Your task to perform on an android device: uninstall "Etsy: Buy & Sell Unique Items" Image 0: 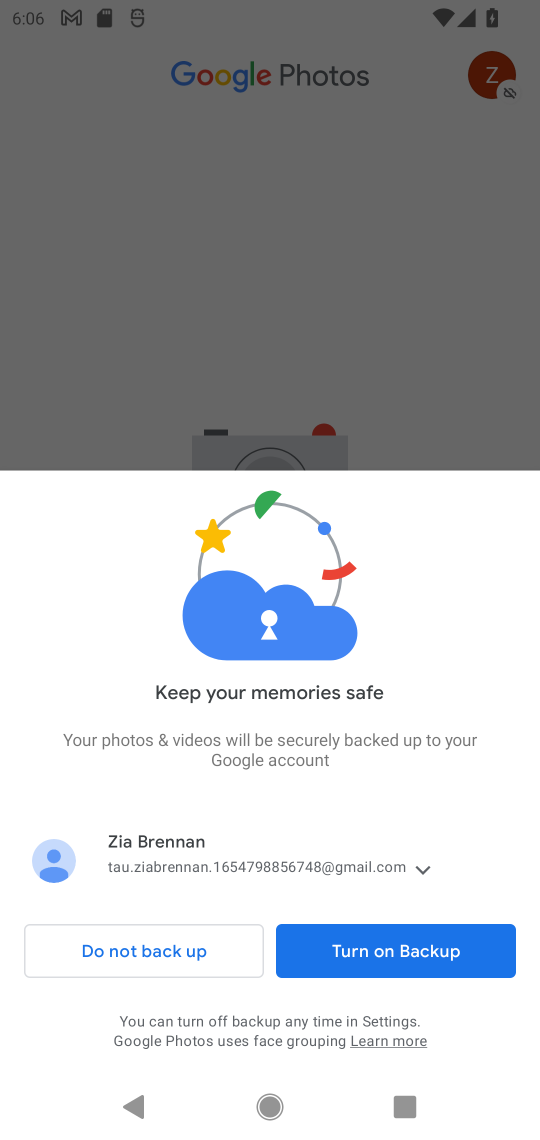
Step 0: click (241, 243)
Your task to perform on an android device: uninstall "Etsy: Buy & Sell Unique Items" Image 1: 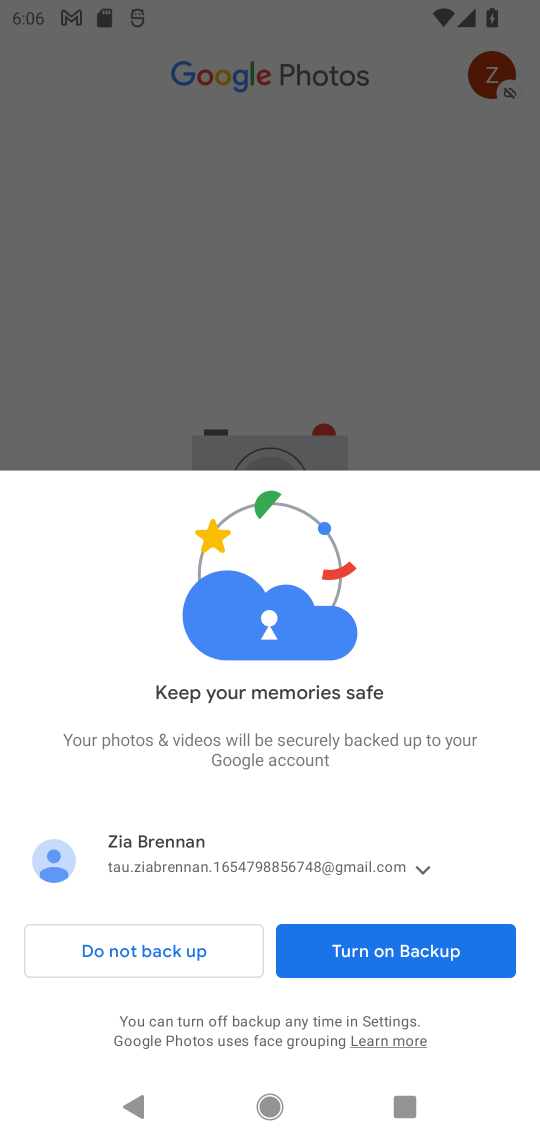
Step 1: click (241, 243)
Your task to perform on an android device: uninstall "Etsy: Buy & Sell Unique Items" Image 2: 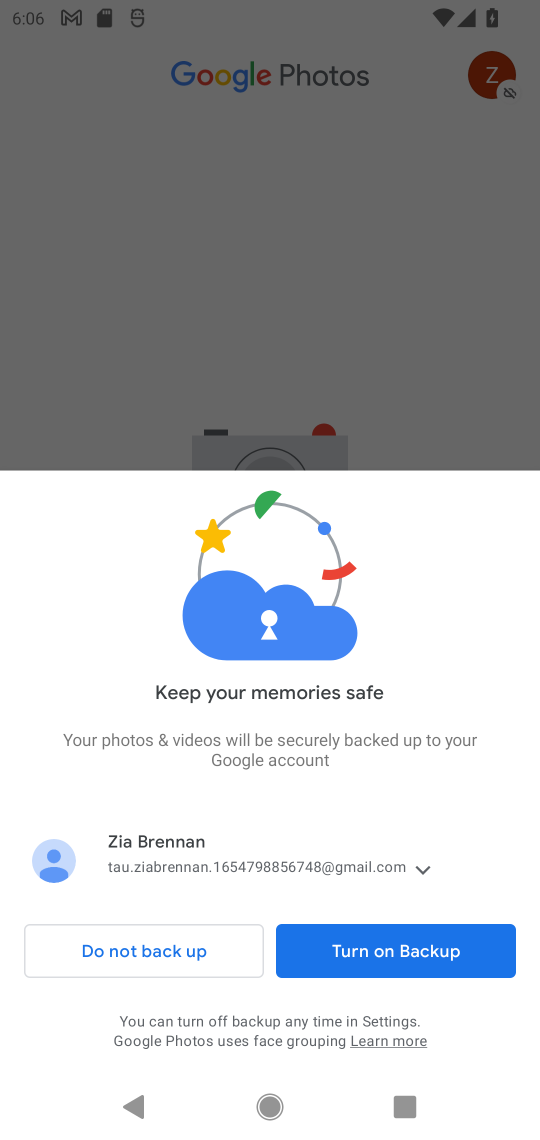
Step 2: click (280, 272)
Your task to perform on an android device: uninstall "Etsy: Buy & Sell Unique Items" Image 3: 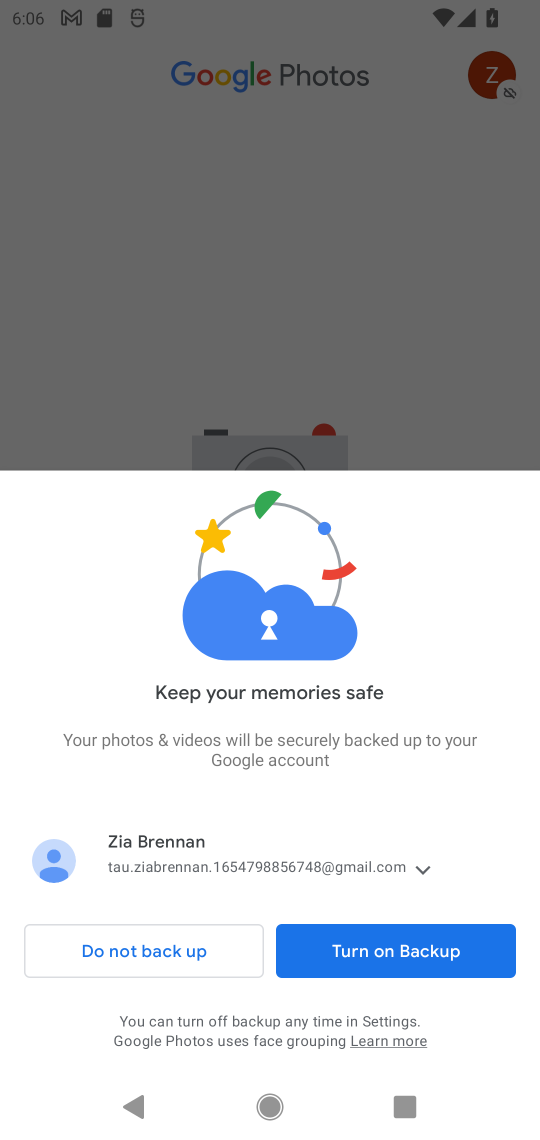
Step 3: click (353, 278)
Your task to perform on an android device: uninstall "Etsy: Buy & Sell Unique Items" Image 4: 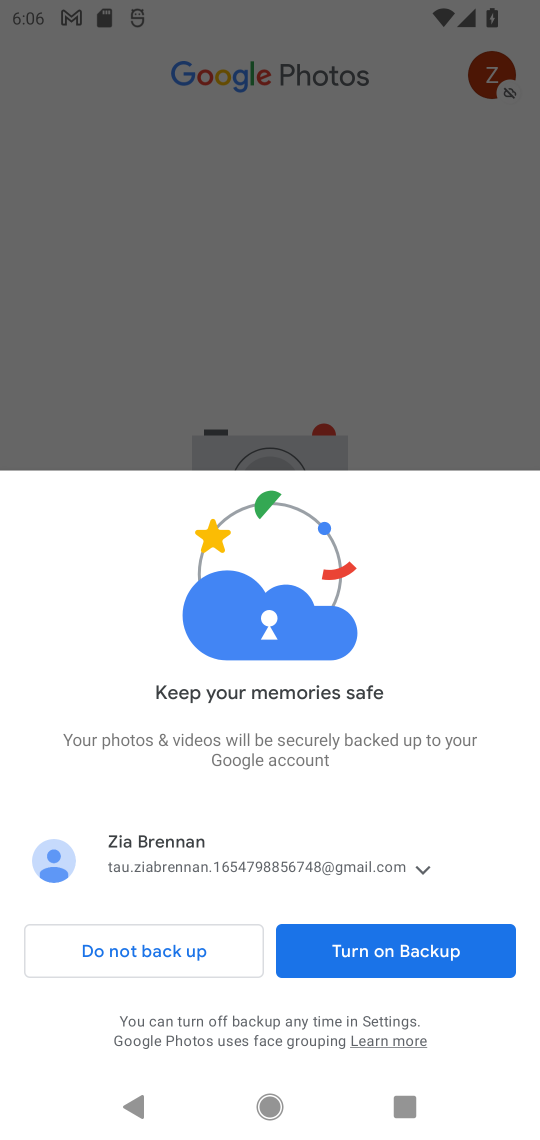
Step 4: click (357, 284)
Your task to perform on an android device: uninstall "Etsy: Buy & Sell Unique Items" Image 5: 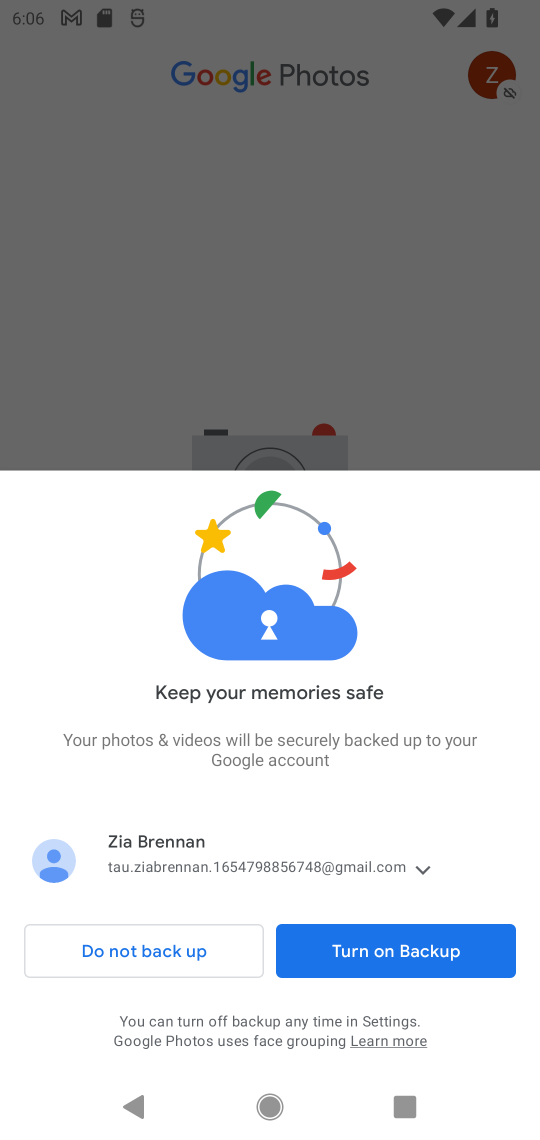
Step 5: click (353, 284)
Your task to perform on an android device: uninstall "Etsy: Buy & Sell Unique Items" Image 6: 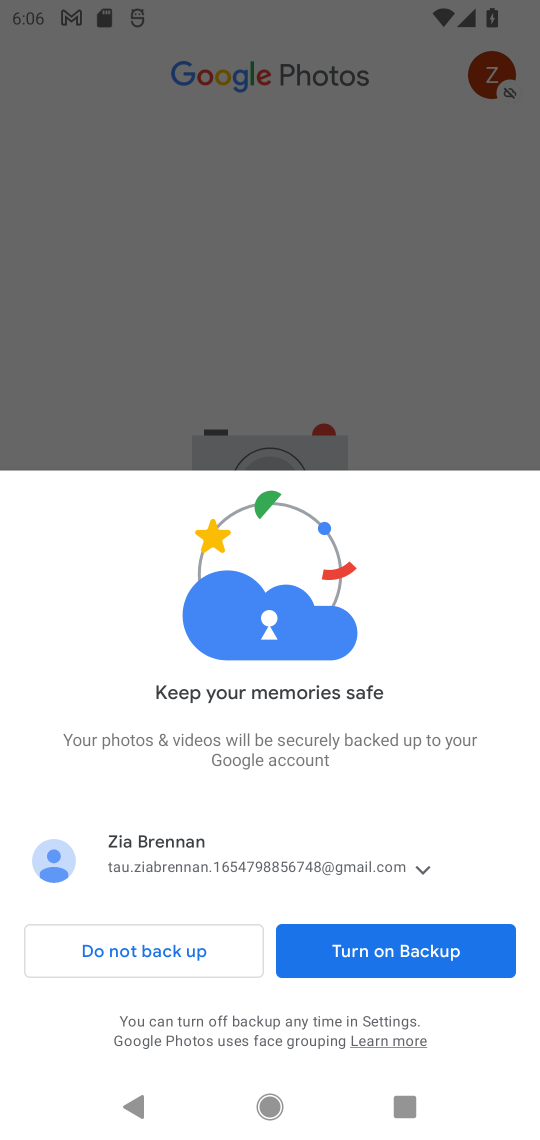
Step 6: press back button
Your task to perform on an android device: uninstall "Etsy: Buy & Sell Unique Items" Image 7: 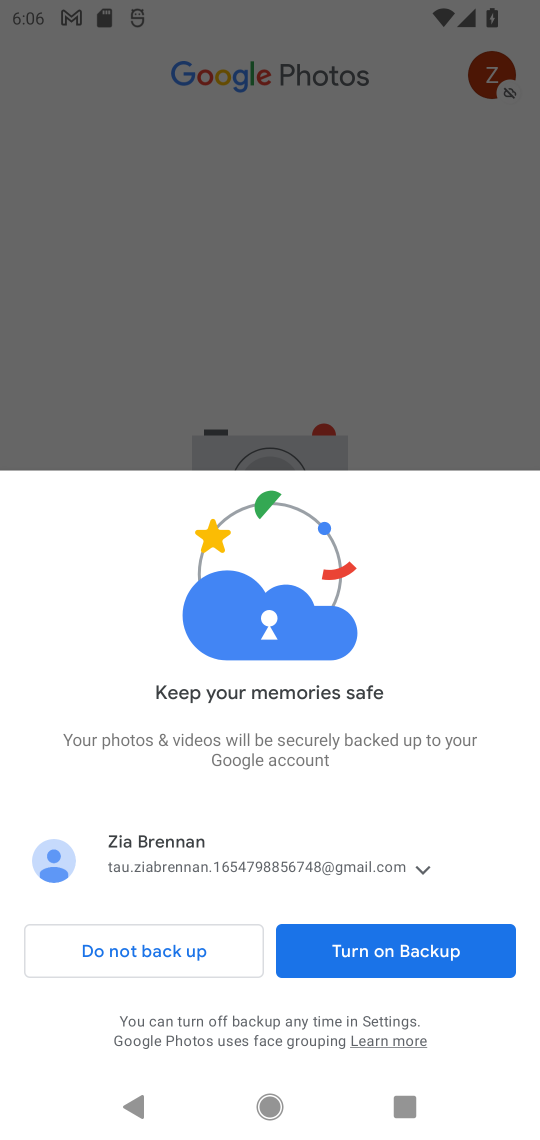
Step 7: press back button
Your task to perform on an android device: uninstall "Etsy: Buy & Sell Unique Items" Image 8: 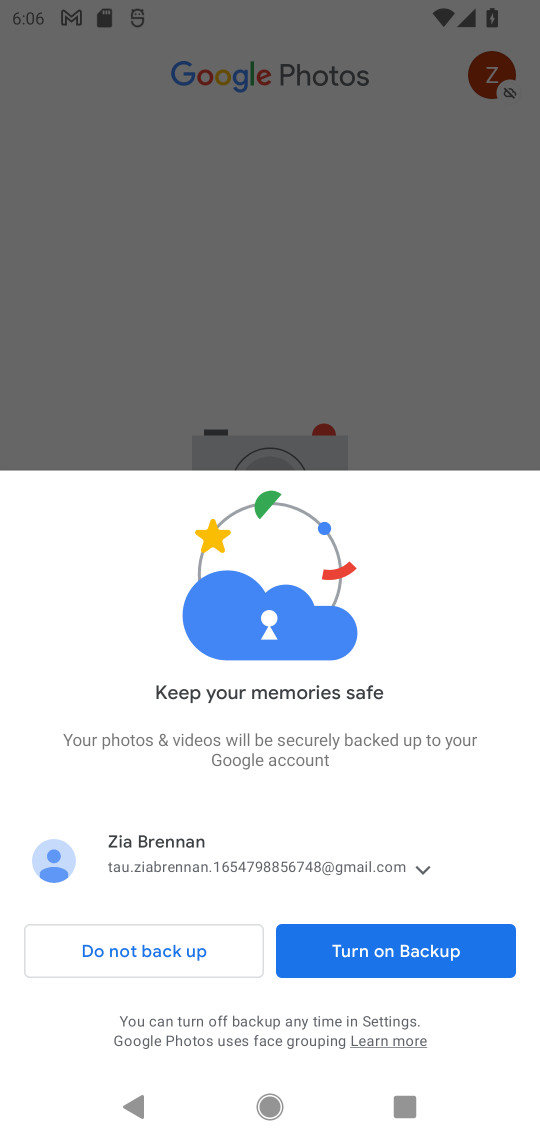
Step 8: click (196, 358)
Your task to perform on an android device: uninstall "Etsy: Buy & Sell Unique Items" Image 9: 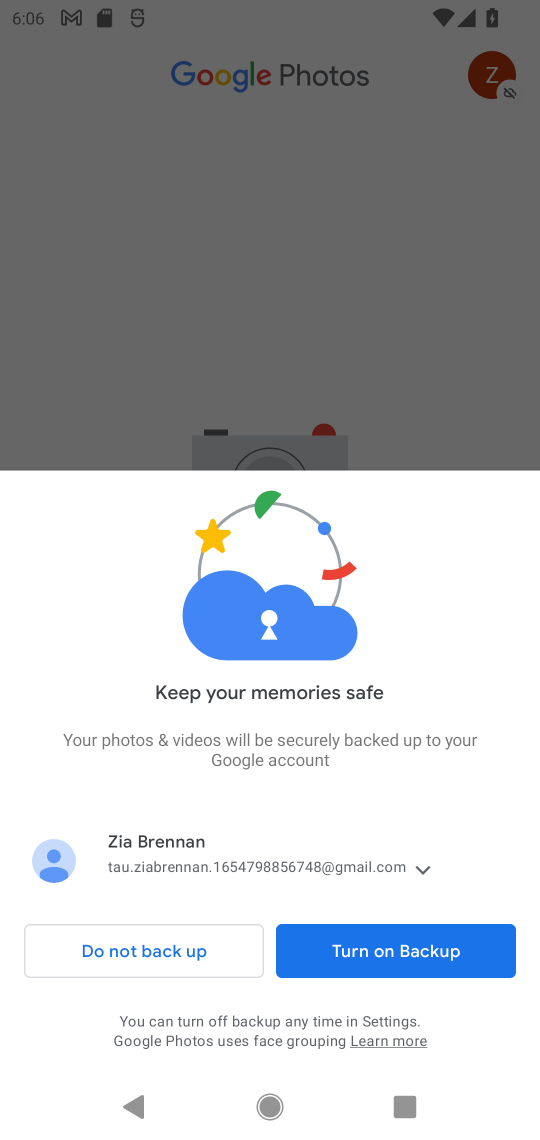
Step 9: click (197, 360)
Your task to perform on an android device: uninstall "Etsy: Buy & Sell Unique Items" Image 10: 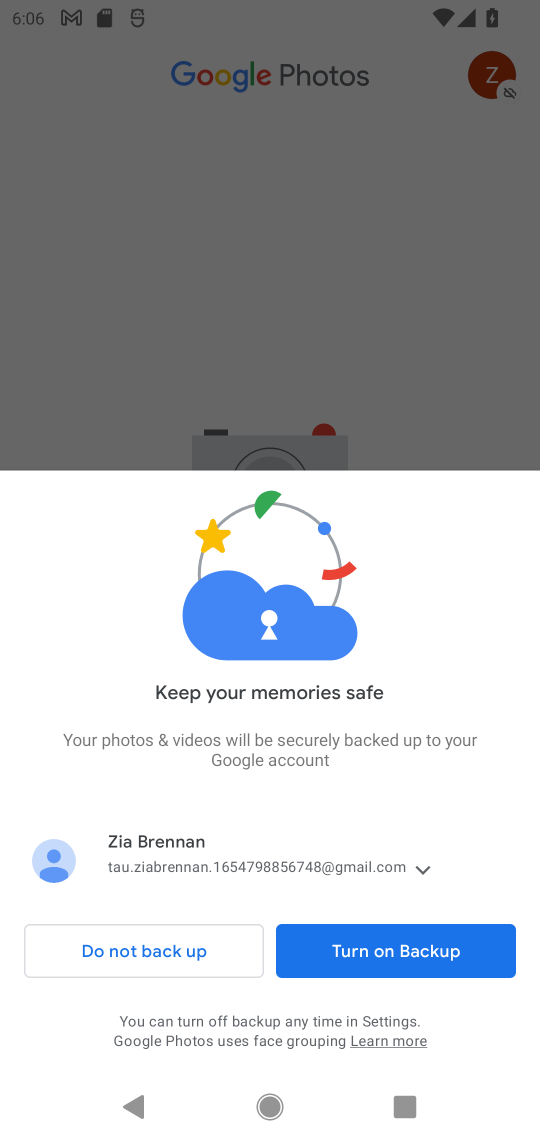
Step 10: press back button
Your task to perform on an android device: uninstall "Etsy: Buy & Sell Unique Items" Image 11: 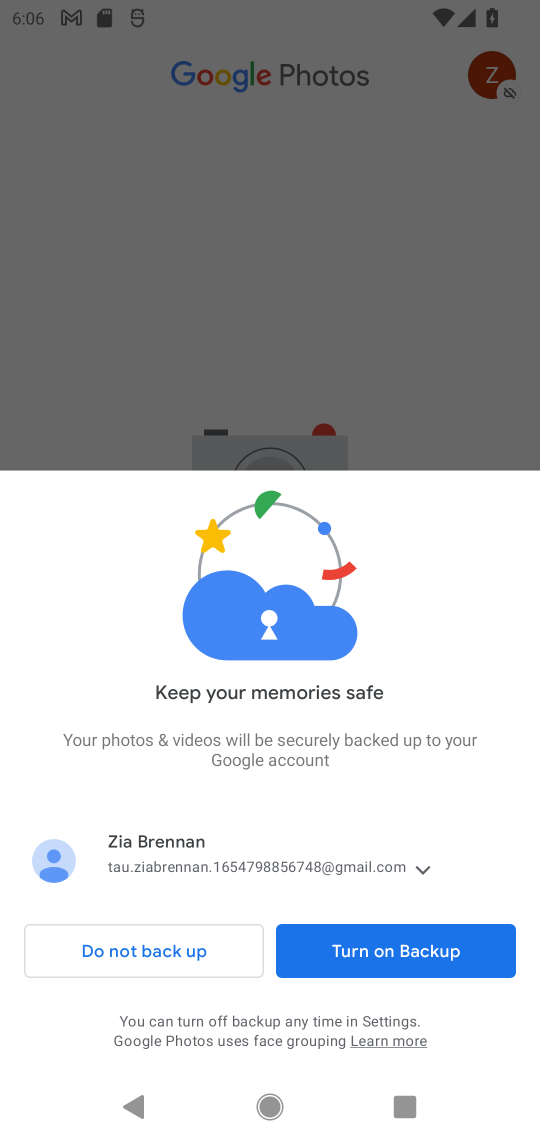
Step 11: drag from (338, 425) to (330, 366)
Your task to perform on an android device: uninstall "Etsy: Buy & Sell Unique Items" Image 12: 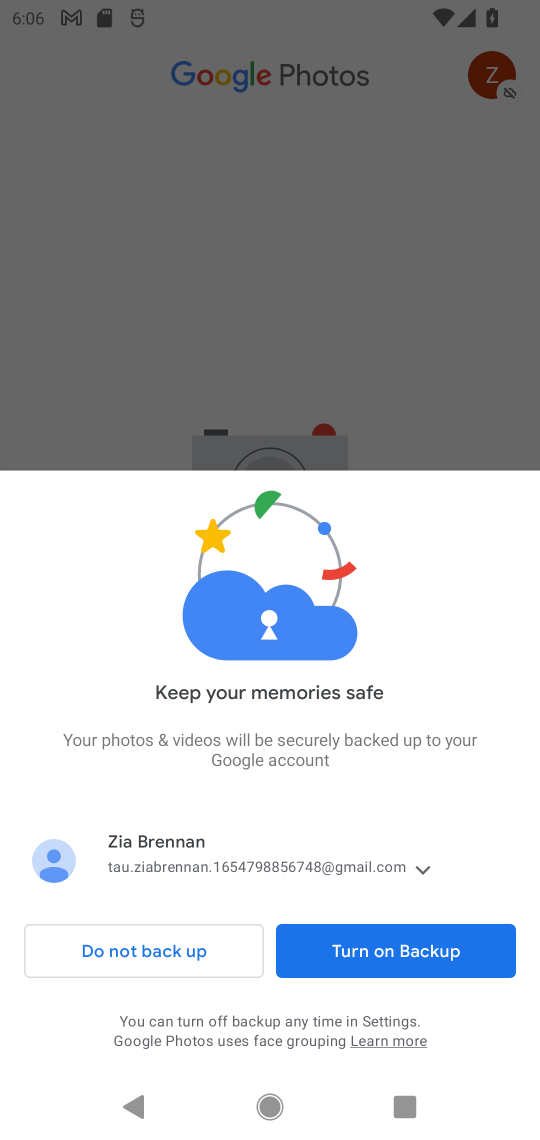
Step 12: click (319, 269)
Your task to perform on an android device: uninstall "Etsy: Buy & Sell Unique Items" Image 13: 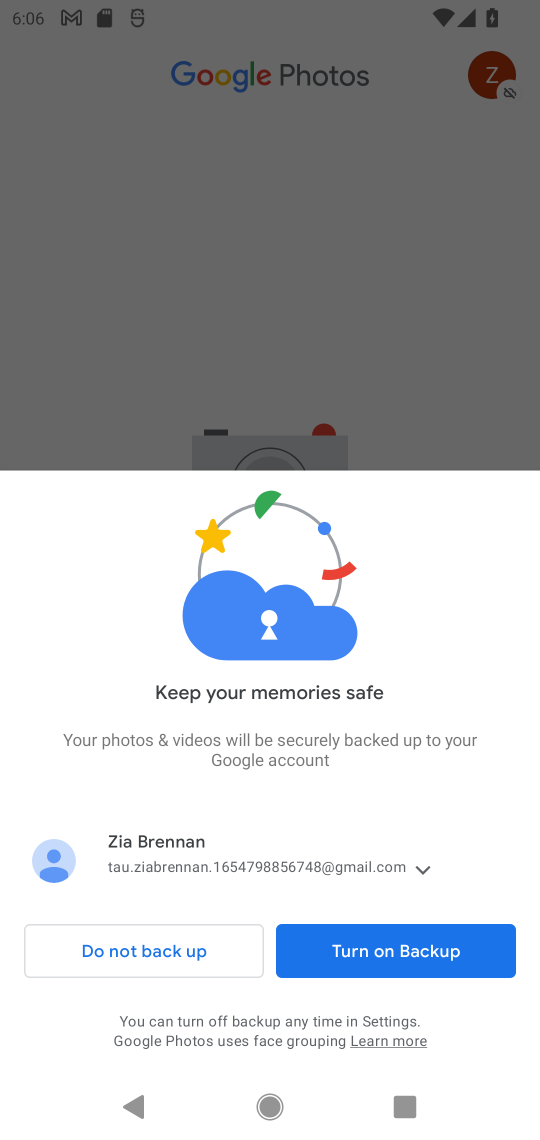
Step 13: click (339, 281)
Your task to perform on an android device: uninstall "Etsy: Buy & Sell Unique Items" Image 14: 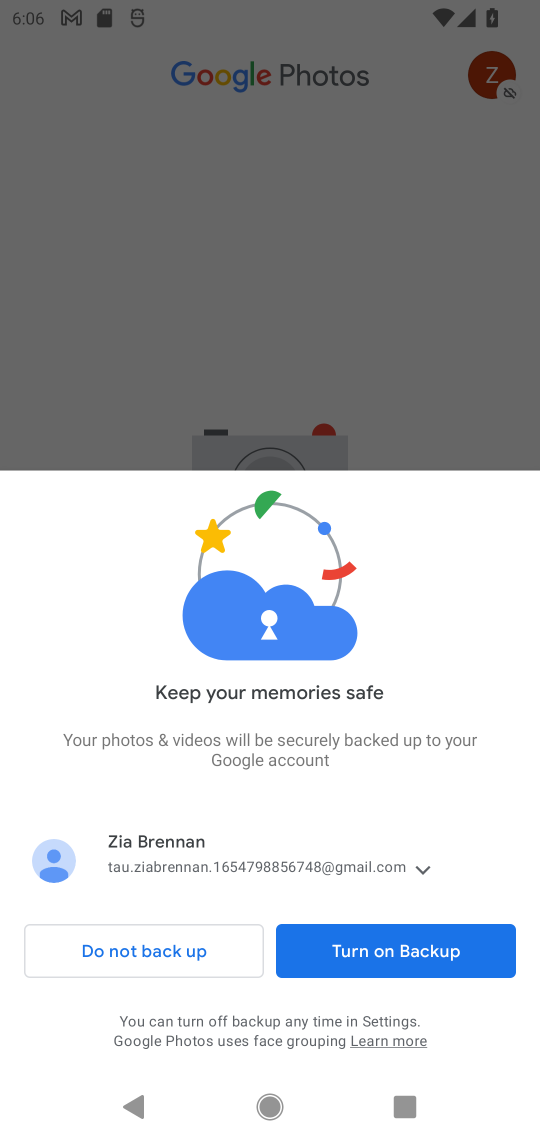
Step 14: press back button
Your task to perform on an android device: uninstall "Etsy: Buy & Sell Unique Items" Image 15: 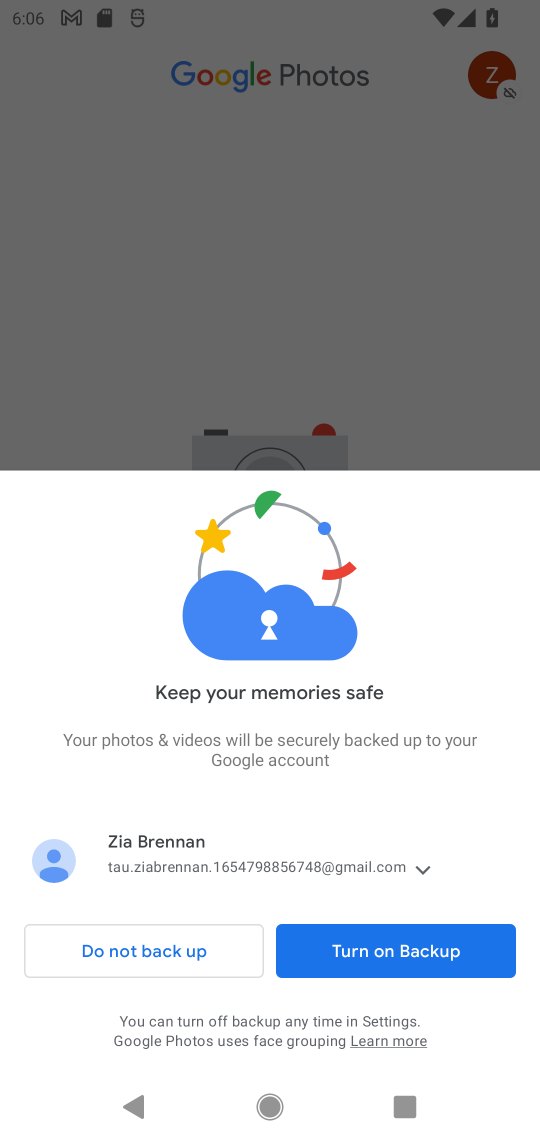
Step 15: press back button
Your task to perform on an android device: uninstall "Etsy: Buy & Sell Unique Items" Image 16: 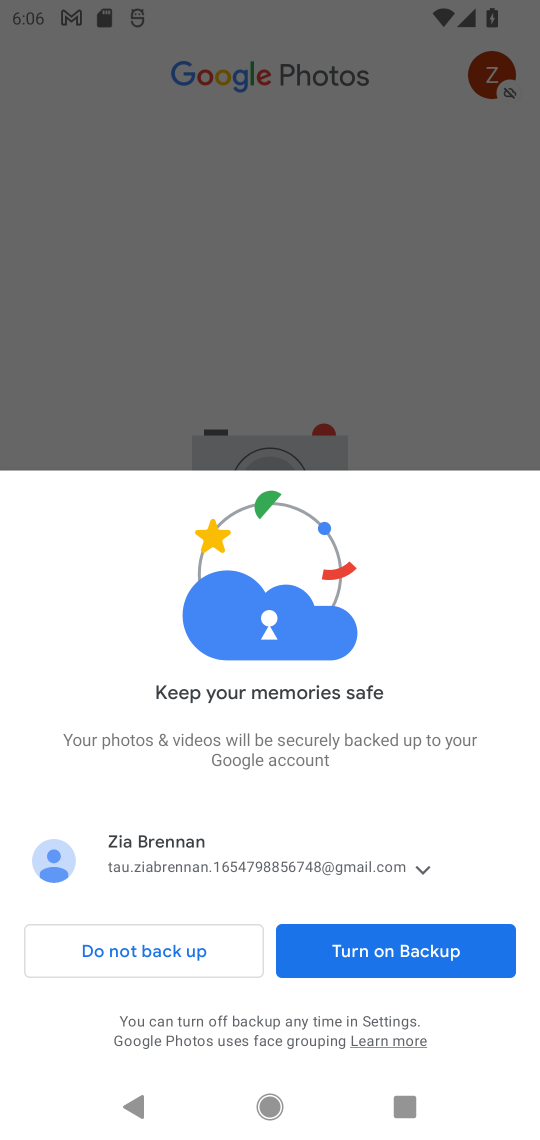
Step 16: click (133, 269)
Your task to perform on an android device: uninstall "Etsy: Buy & Sell Unique Items" Image 17: 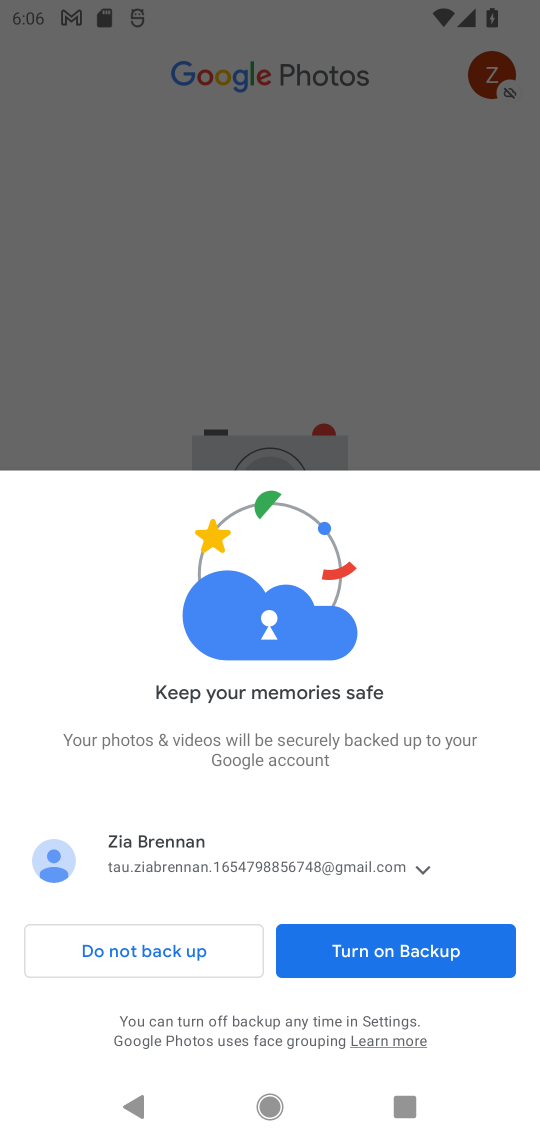
Step 17: click (341, 303)
Your task to perform on an android device: uninstall "Etsy: Buy & Sell Unique Items" Image 18: 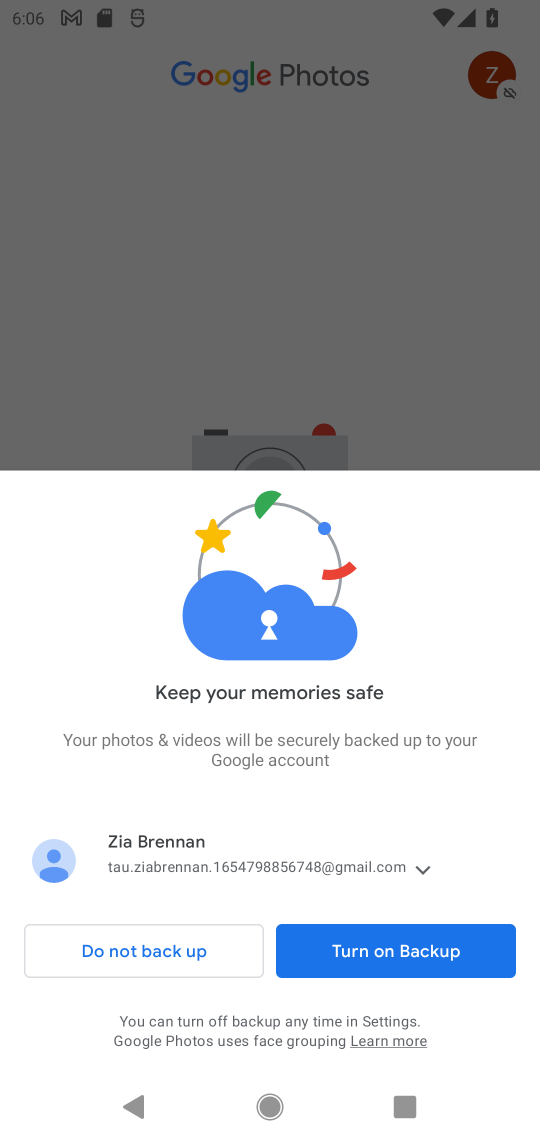
Step 18: click (326, 301)
Your task to perform on an android device: uninstall "Etsy: Buy & Sell Unique Items" Image 19: 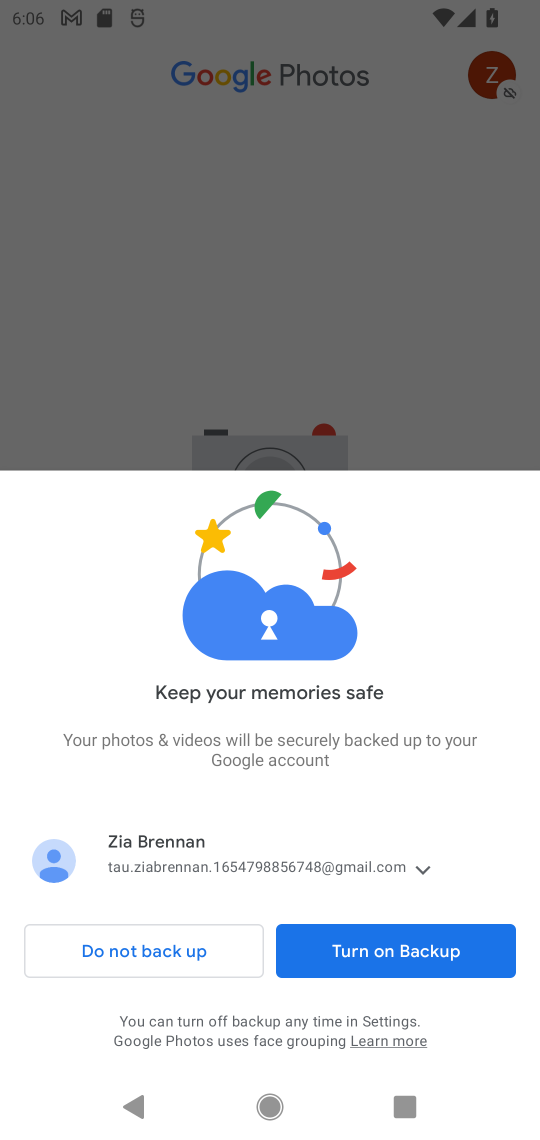
Step 19: press home button
Your task to perform on an android device: uninstall "Etsy: Buy & Sell Unique Items" Image 20: 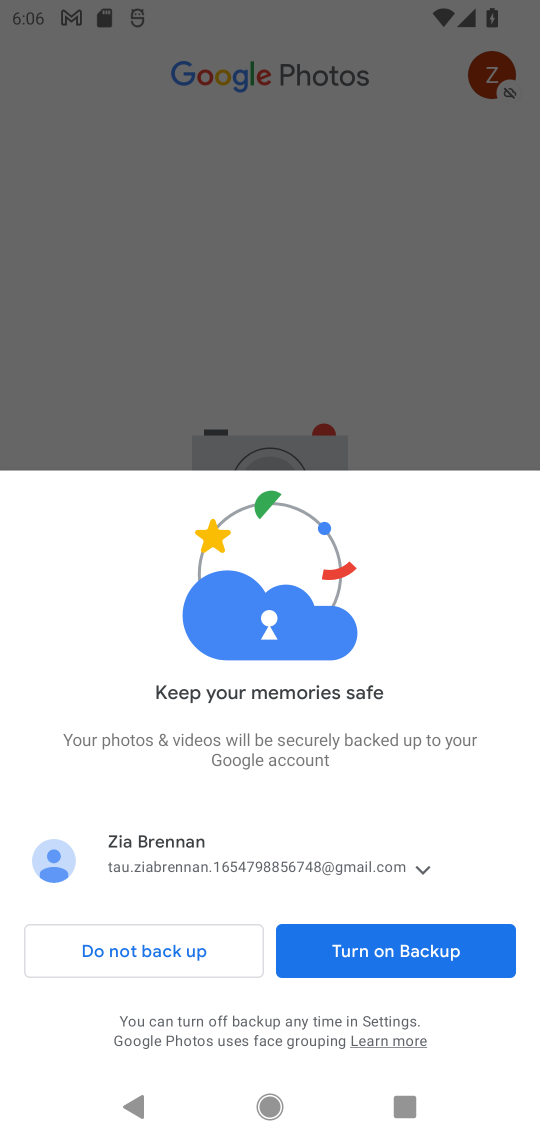
Step 20: press home button
Your task to perform on an android device: uninstall "Etsy: Buy & Sell Unique Items" Image 21: 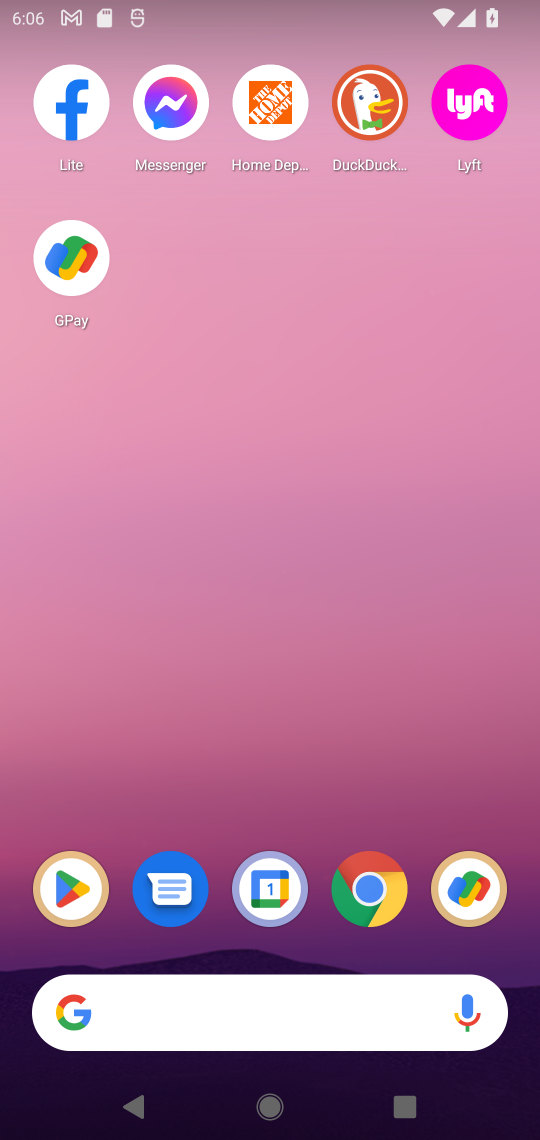
Step 21: press home button
Your task to perform on an android device: uninstall "Etsy: Buy & Sell Unique Items" Image 22: 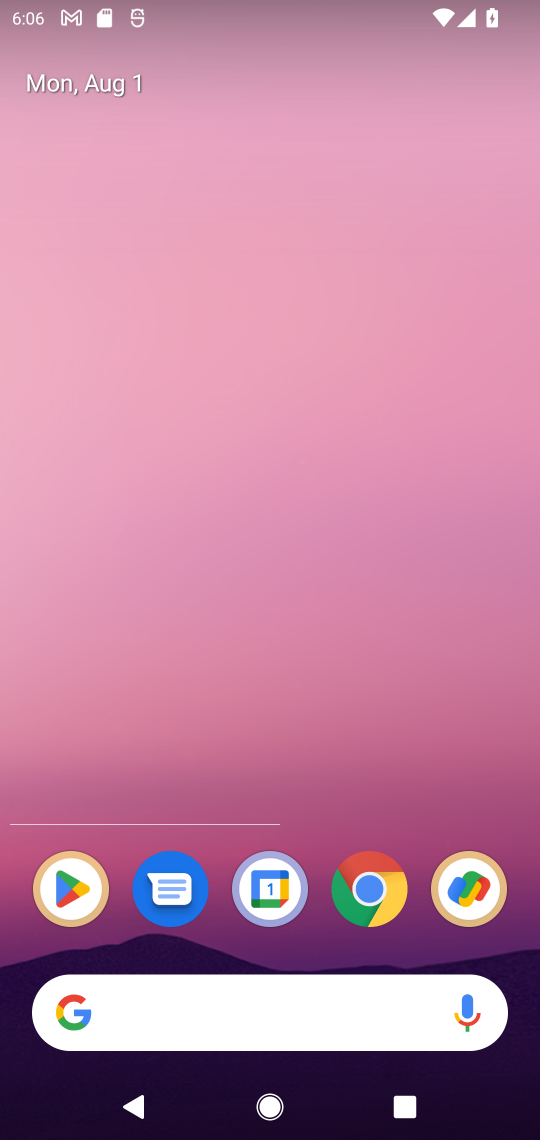
Step 22: press home button
Your task to perform on an android device: uninstall "Etsy: Buy & Sell Unique Items" Image 23: 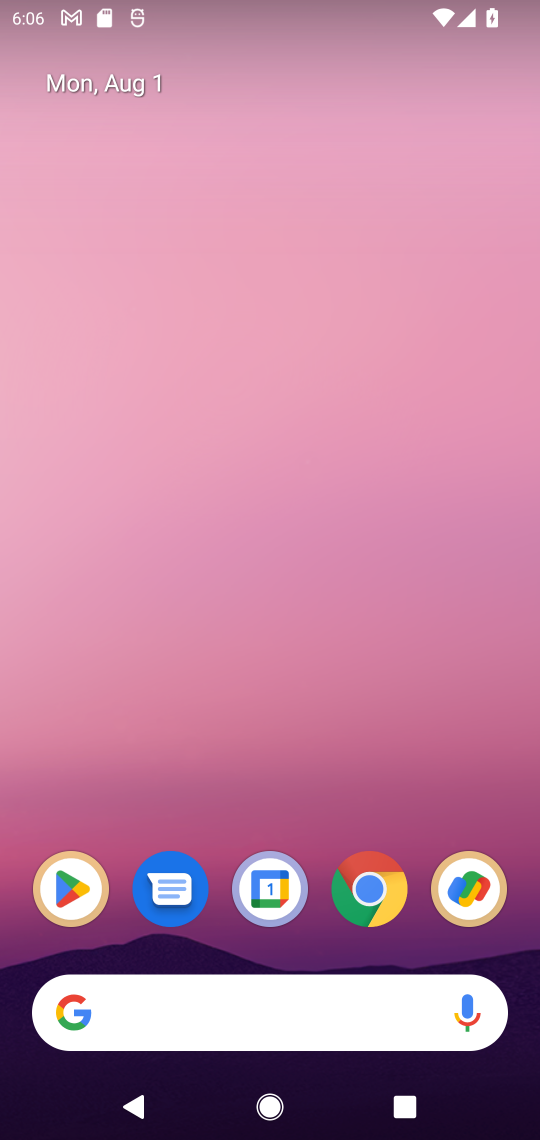
Step 23: drag from (216, 1027) to (184, 32)
Your task to perform on an android device: uninstall "Etsy: Buy & Sell Unique Items" Image 24: 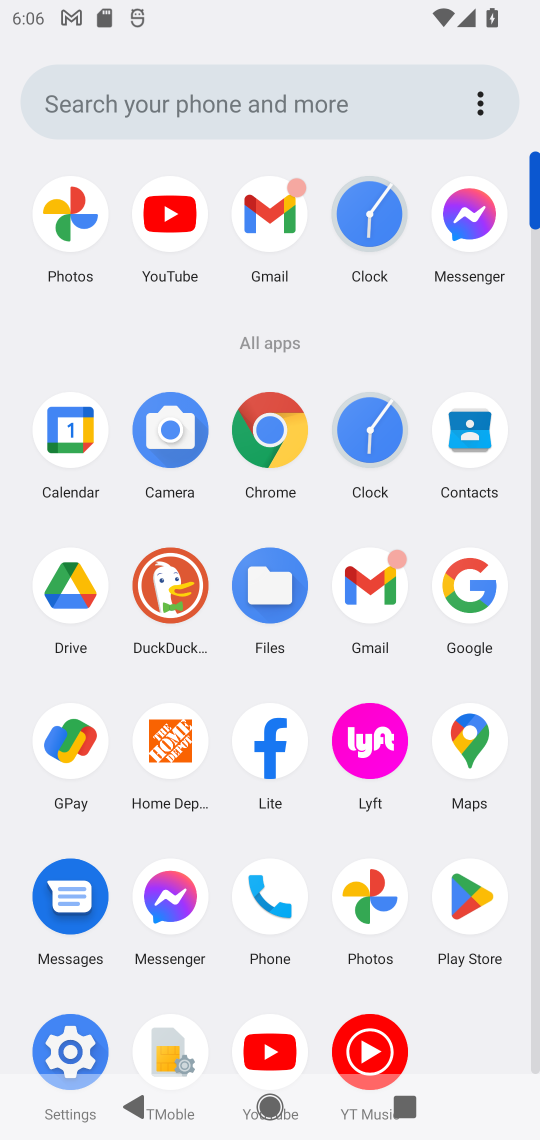
Step 24: click (468, 902)
Your task to perform on an android device: uninstall "Etsy: Buy & Sell Unique Items" Image 25: 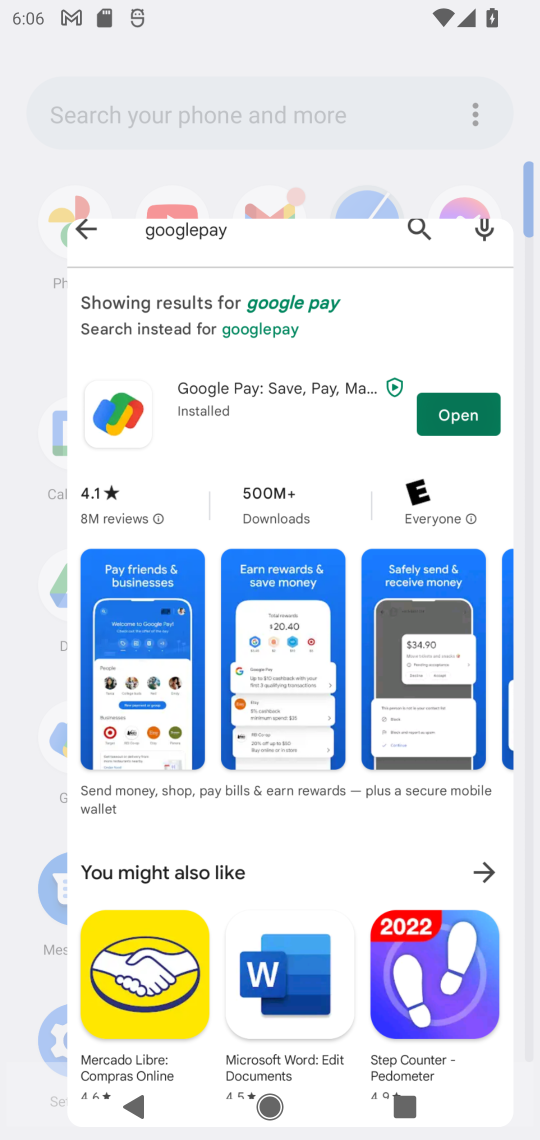
Step 25: click (469, 903)
Your task to perform on an android device: uninstall "Etsy: Buy & Sell Unique Items" Image 26: 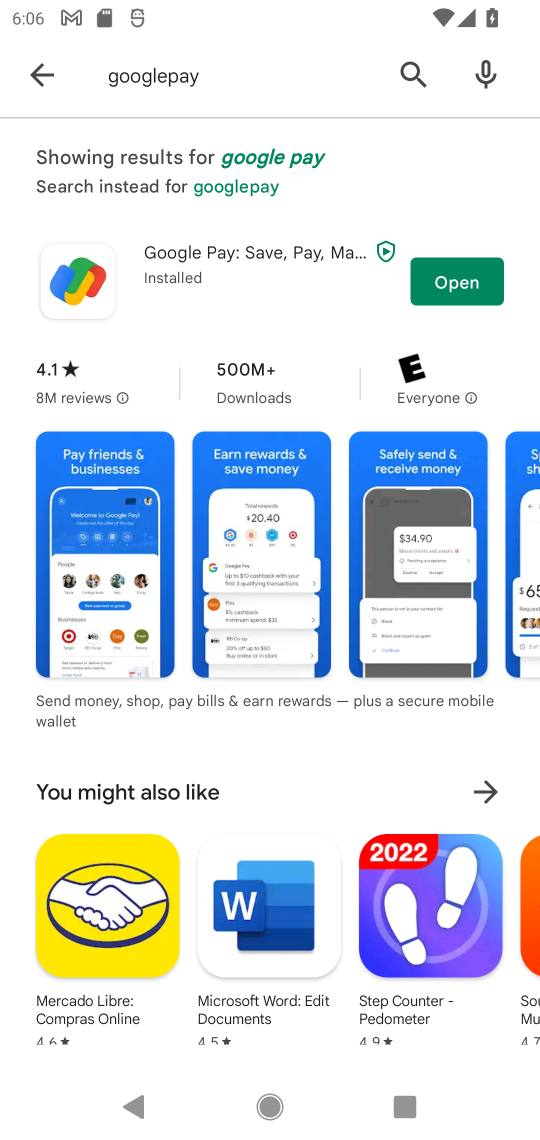
Step 26: click (38, 77)
Your task to perform on an android device: uninstall "Etsy: Buy & Sell Unique Items" Image 27: 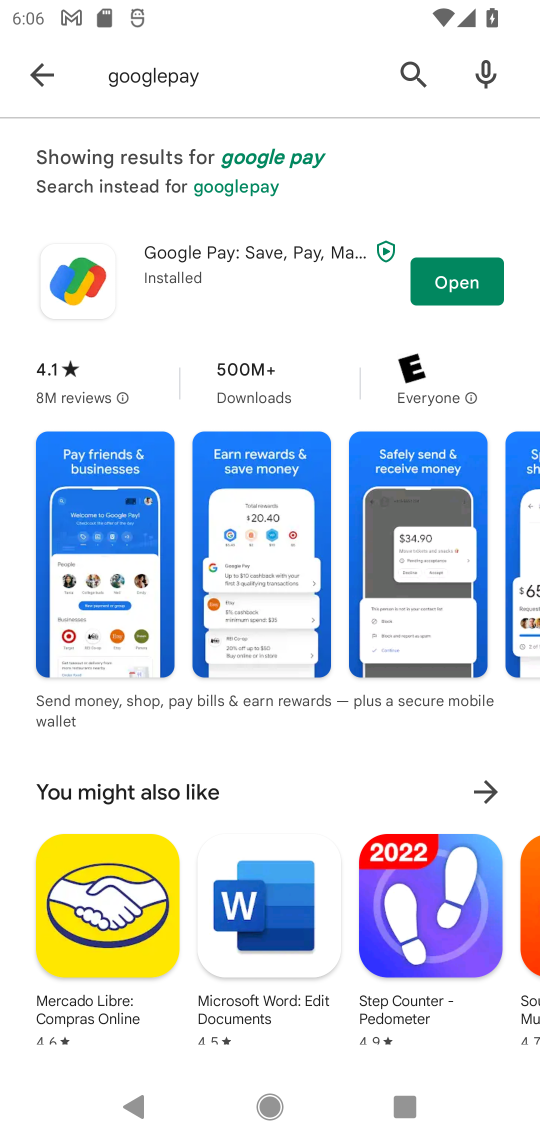
Step 27: click (40, 82)
Your task to perform on an android device: uninstall "Etsy: Buy & Sell Unique Items" Image 28: 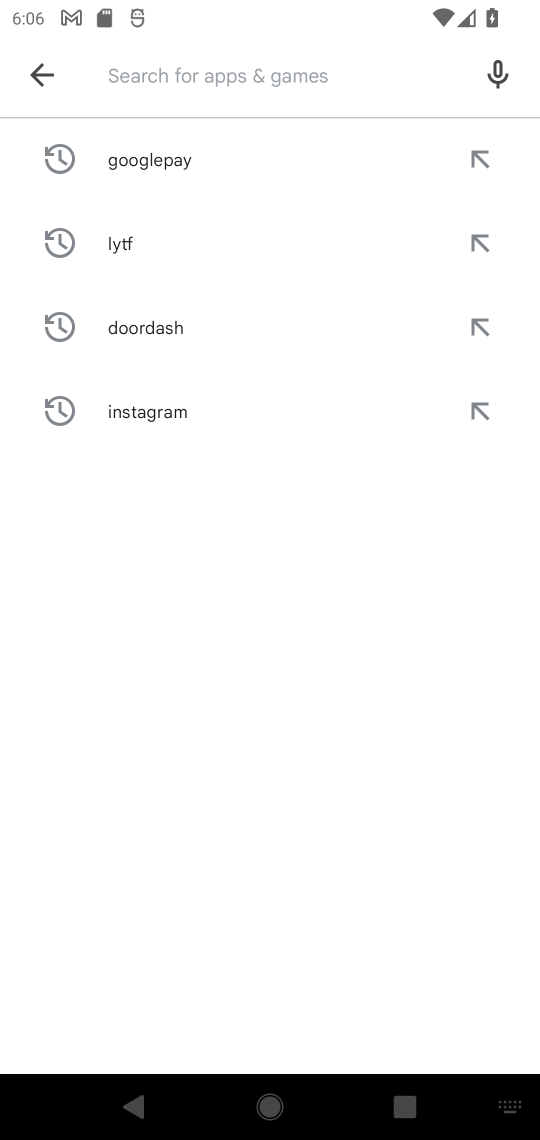
Step 28: click (118, 70)
Your task to perform on an android device: uninstall "Etsy: Buy & Sell Unique Items" Image 29: 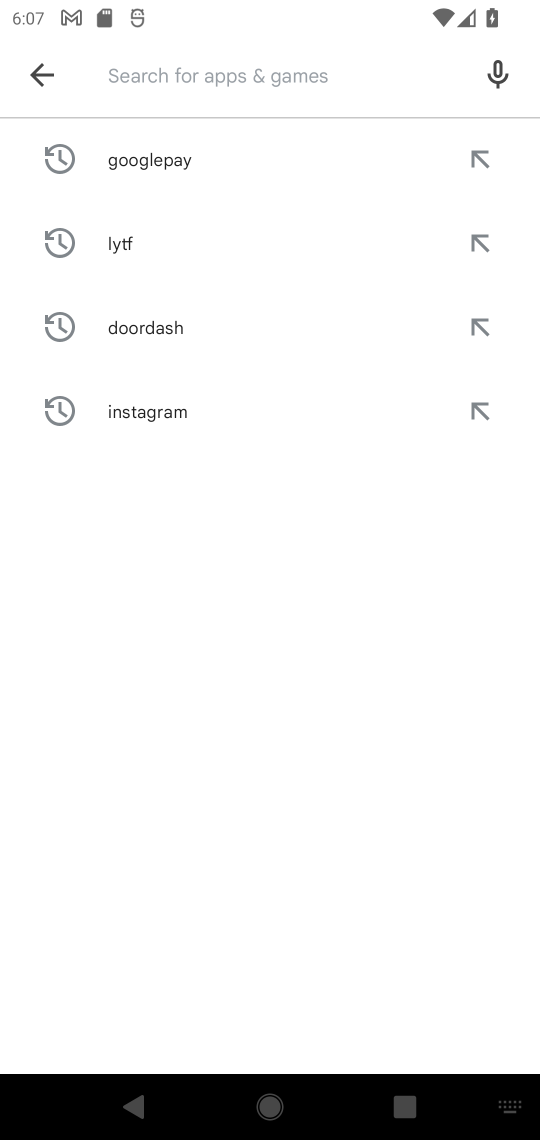
Step 29: type "Etsy"
Your task to perform on an android device: uninstall "Etsy: Buy & Sell Unique Items" Image 30: 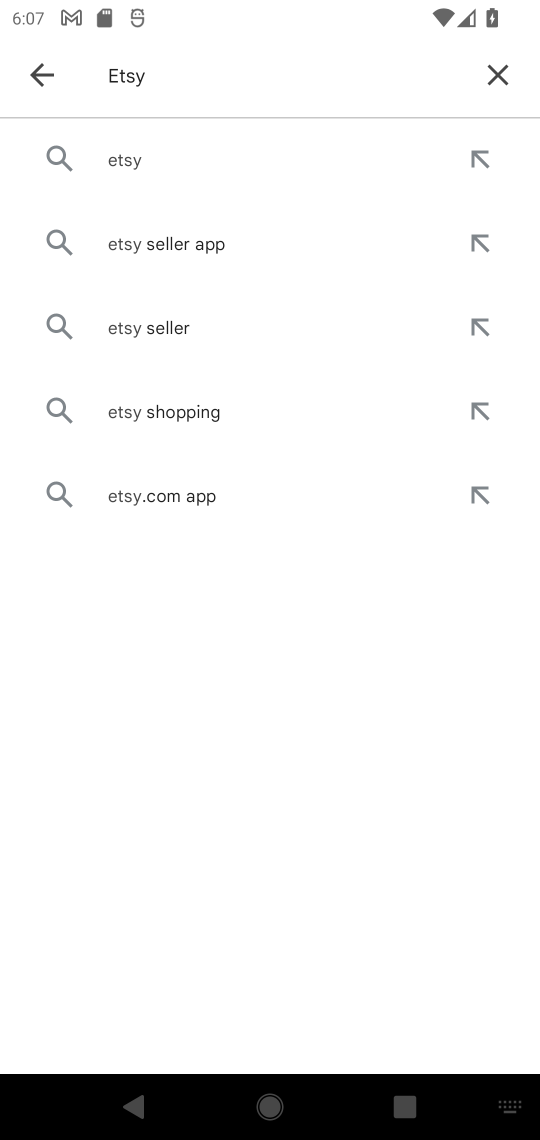
Step 30: click (113, 152)
Your task to perform on an android device: uninstall "Etsy: Buy & Sell Unique Items" Image 31: 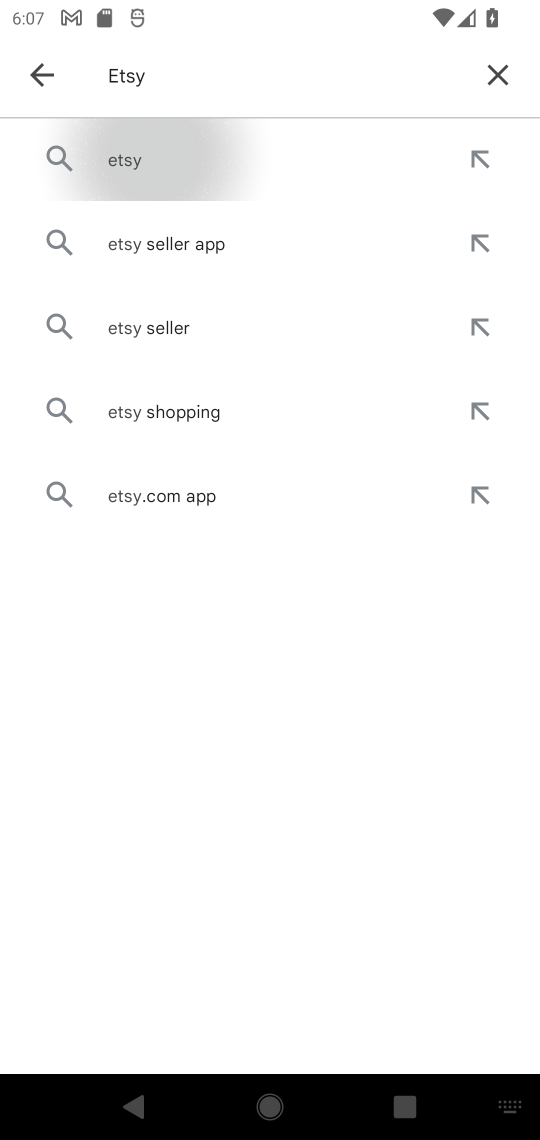
Step 31: click (126, 163)
Your task to perform on an android device: uninstall "Etsy: Buy & Sell Unique Items" Image 32: 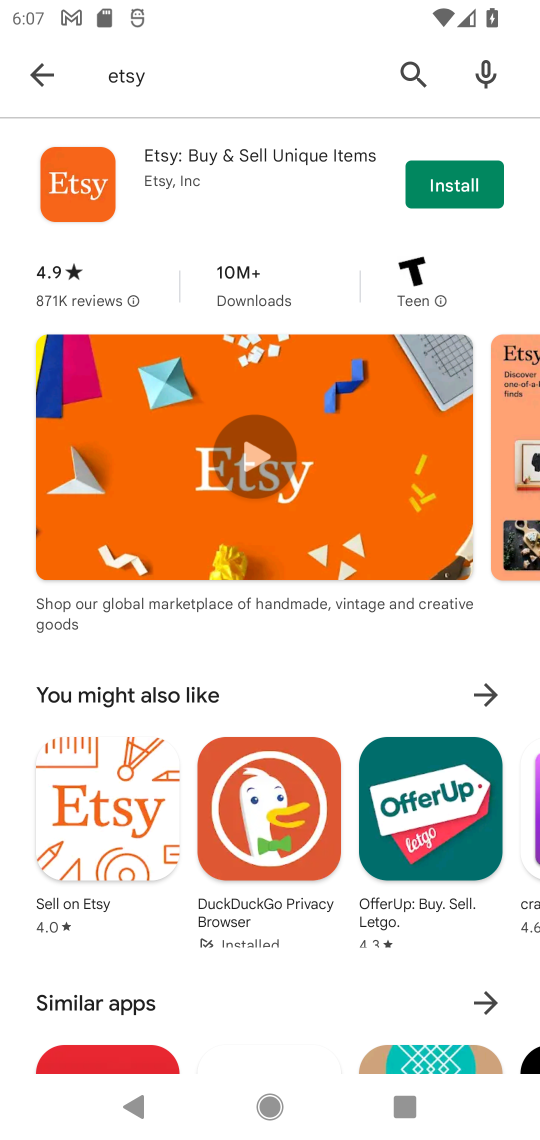
Step 32: click (440, 184)
Your task to perform on an android device: uninstall "Etsy: Buy & Sell Unique Items" Image 33: 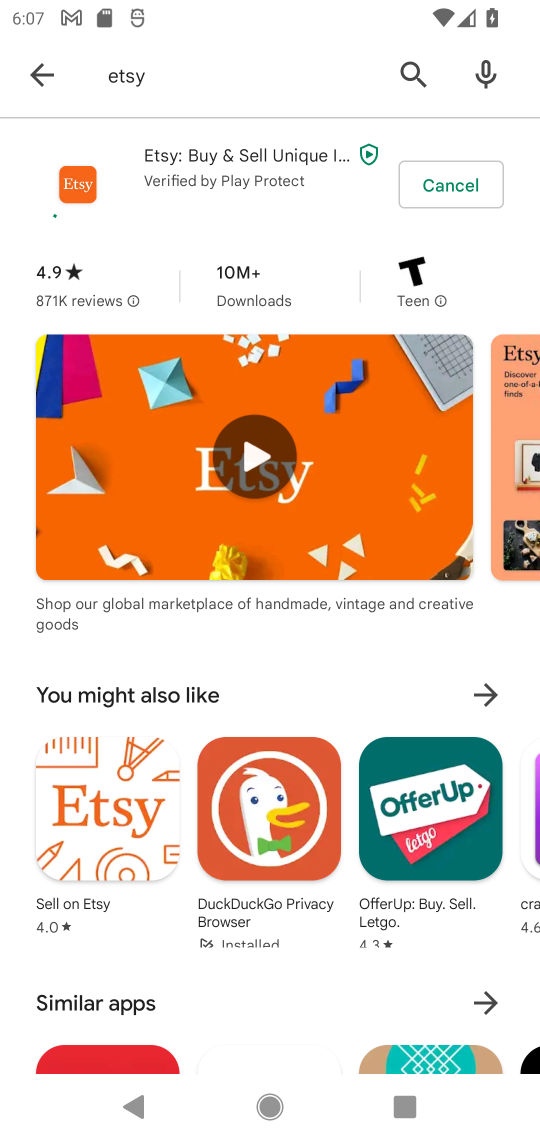
Step 33: click (434, 182)
Your task to perform on an android device: uninstall "Etsy: Buy & Sell Unique Items" Image 34: 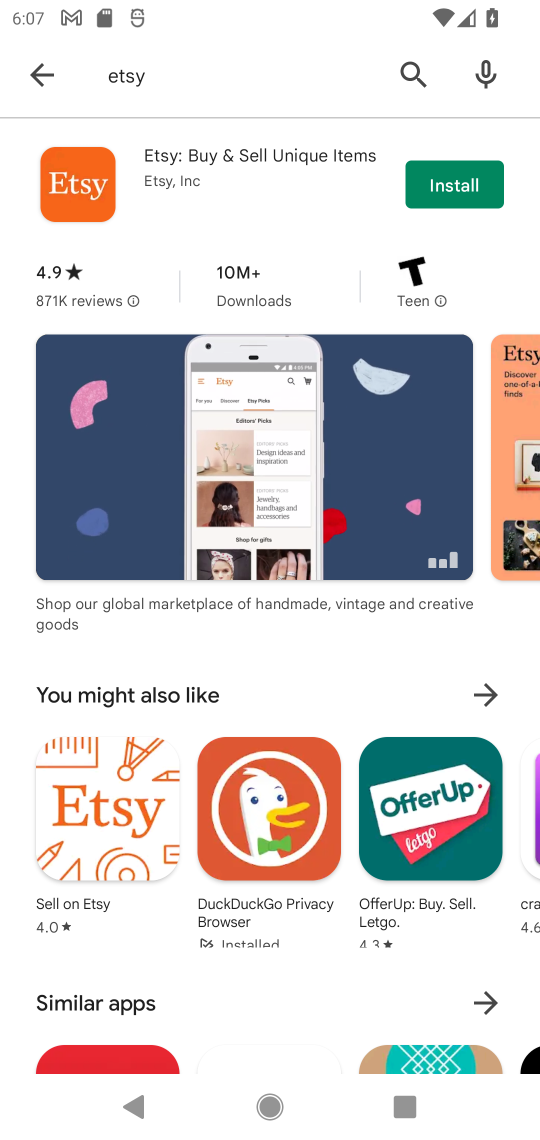
Step 34: task complete